Your task to perform on an android device: Open Amazon Image 0: 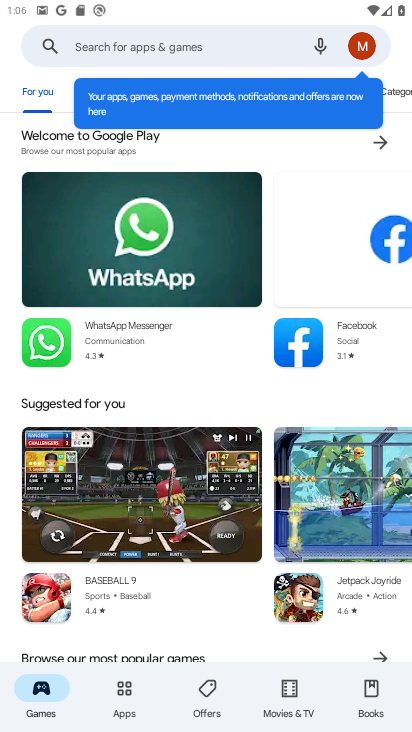
Step 0: press home button
Your task to perform on an android device: Open Amazon Image 1: 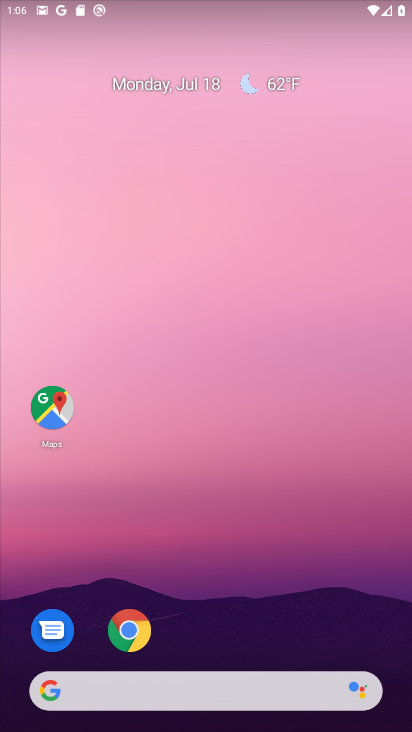
Step 1: click (133, 631)
Your task to perform on an android device: Open Amazon Image 2: 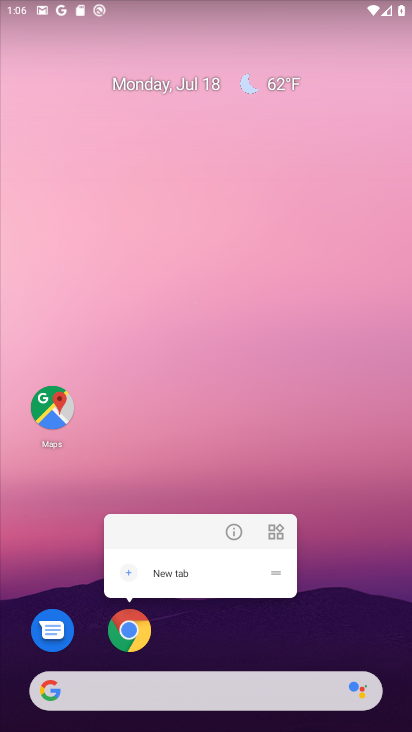
Step 2: click (133, 631)
Your task to perform on an android device: Open Amazon Image 3: 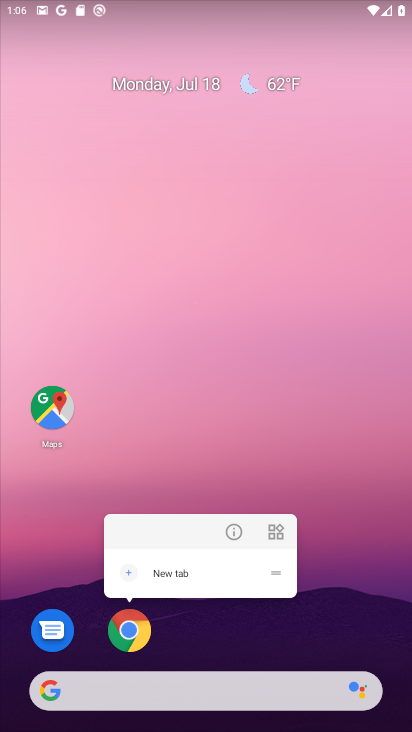
Step 3: click (125, 639)
Your task to perform on an android device: Open Amazon Image 4: 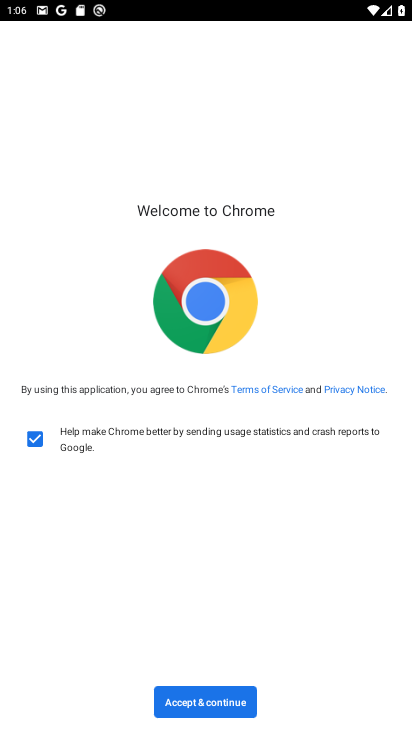
Step 4: click (206, 697)
Your task to perform on an android device: Open Amazon Image 5: 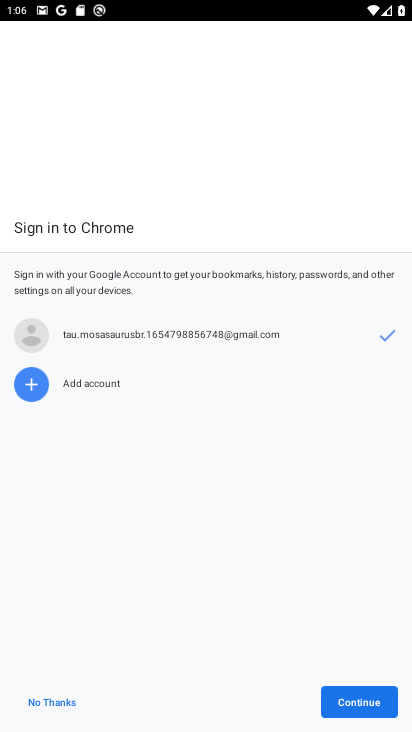
Step 5: click (336, 705)
Your task to perform on an android device: Open Amazon Image 6: 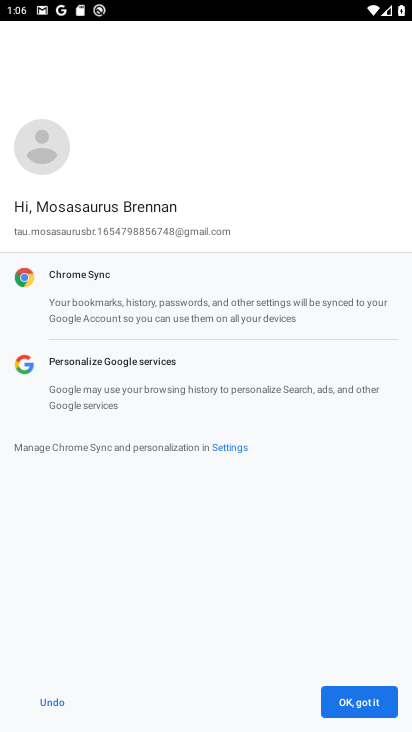
Step 6: click (336, 706)
Your task to perform on an android device: Open Amazon Image 7: 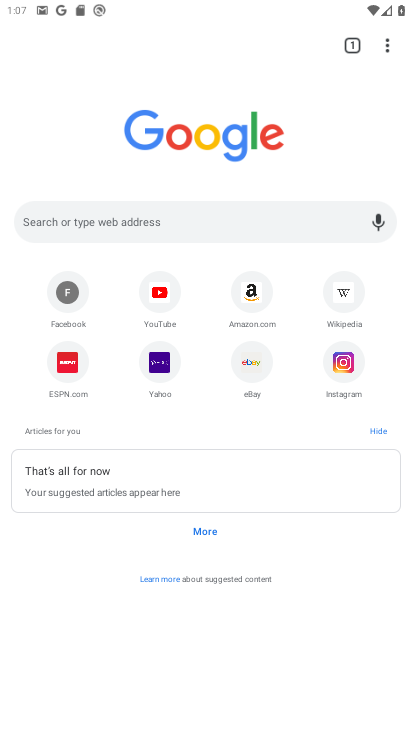
Step 7: click (244, 298)
Your task to perform on an android device: Open Amazon Image 8: 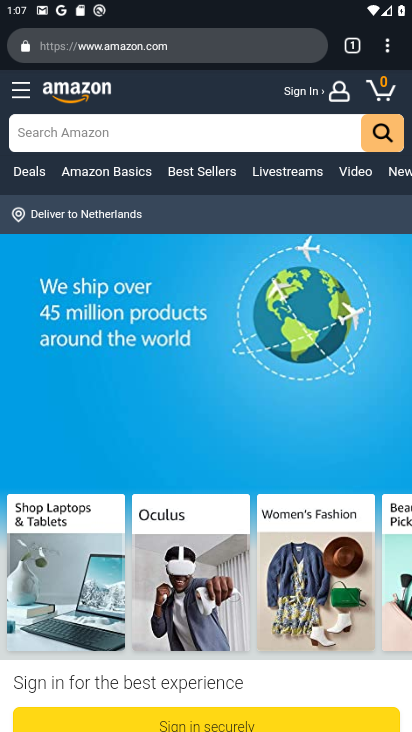
Step 8: task complete